Your task to perform on an android device: toggle show notifications on the lock screen Image 0: 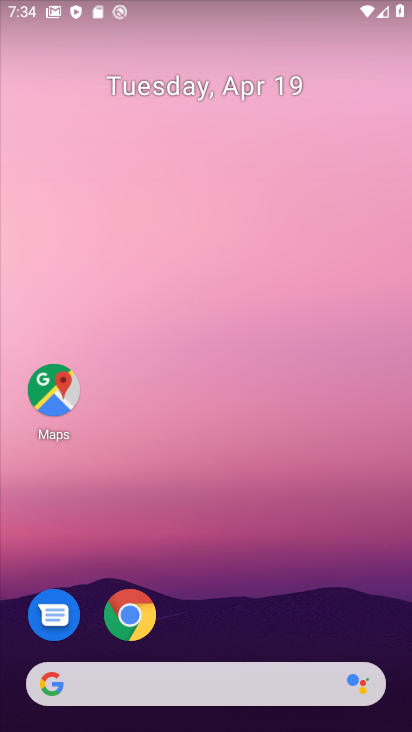
Step 0: drag from (230, 13) to (236, 588)
Your task to perform on an android device: toggle show notifications on the lock screen Image 1: 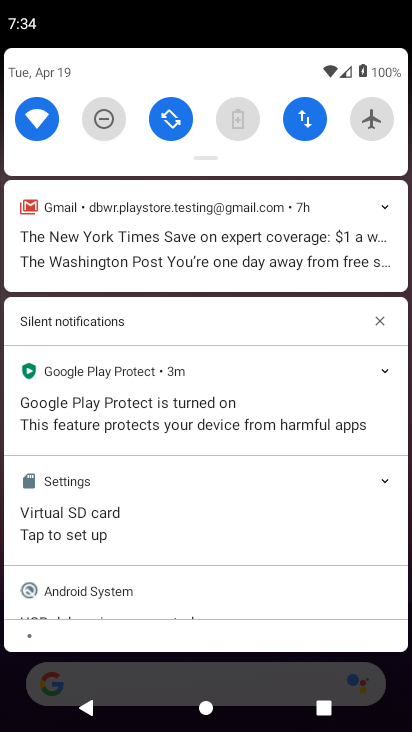
Step 1: drag from (223, 89) to (281, 647)
Your task to perform on an android device: toggle show notifications on the lock screen Image 2: 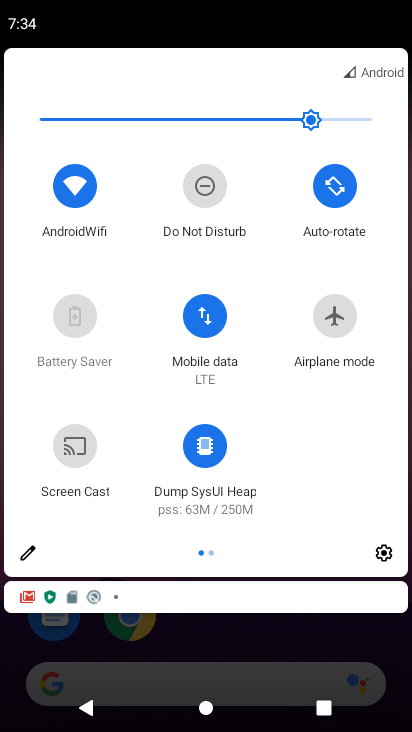
Step 2: click (383, 562)
Your task to perform on an android device: toggle show notifications on the lock screen Image 3: 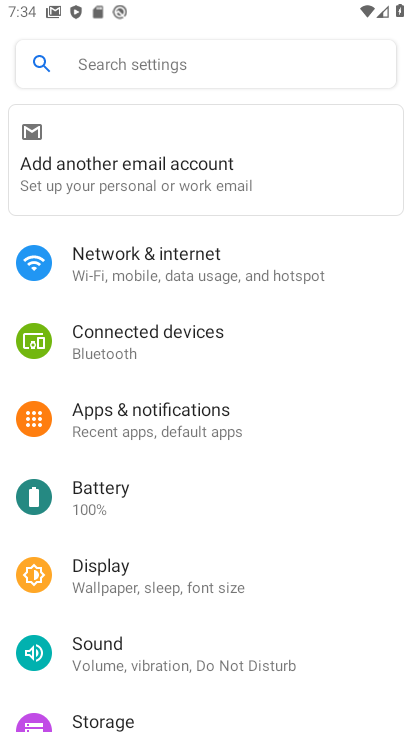
Step 3: click (179, 419)
Your task to perform on an android device: toggle show notifications on the lock screen Image 4: 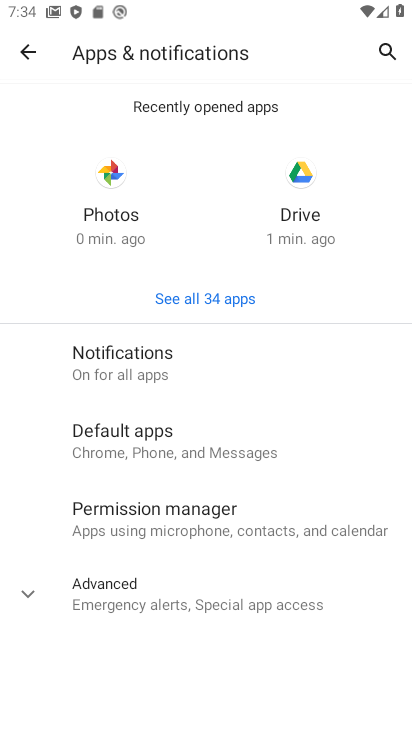
Step 4: click (140, 364)
Your task to perform on an android device: toggle show notifications on the lock screen Image 5: 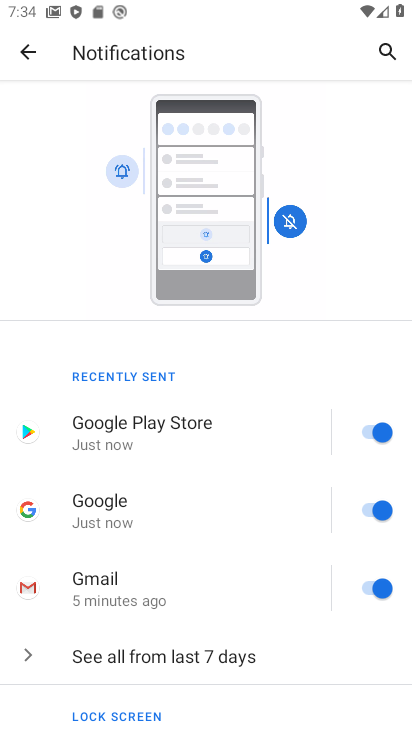
Step 5: drag from (242, 720) to (195, 113)
Your task to perform on an android device: toggle show notifications on the lock screen Image 6: 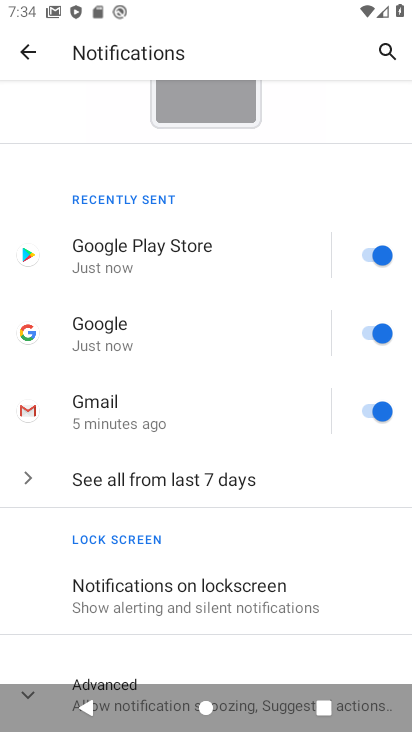
Step 6: drag from (263, 536) to (320, 15)
Your task to perform on an android device: toggle show notifications on the lock screen Image 7: 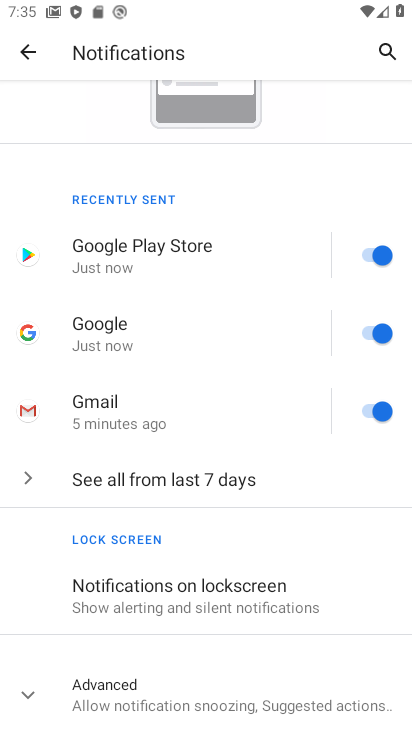
Step 7: click (210, 591)
Your task to perform on an android device: toggle show notifications on the lock screen Image 8: 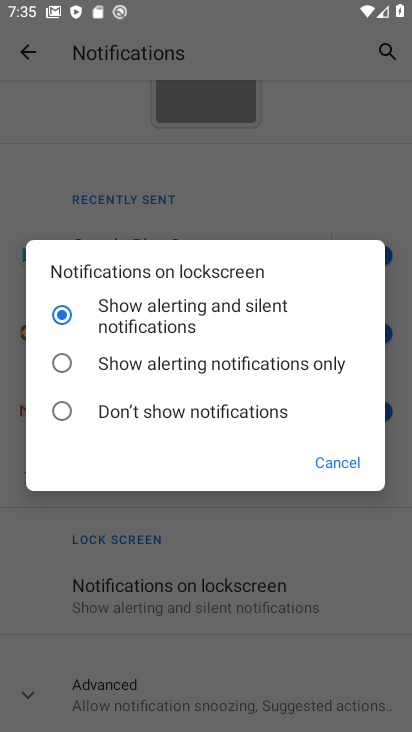
Step 8: click (198, 374)
Your task to perform on an android device: toggle show notifications on the lock screen Image 9: 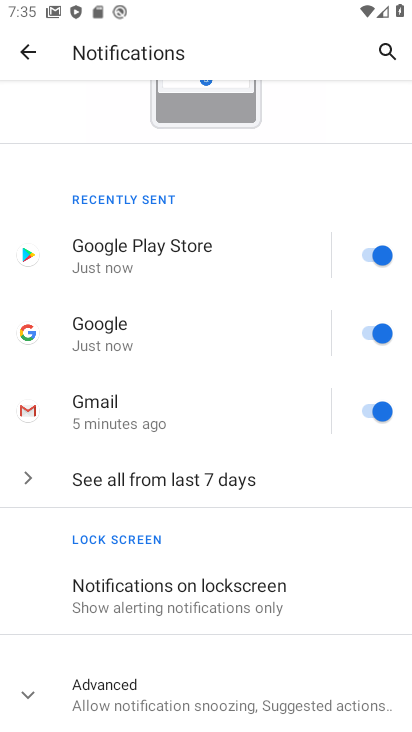
Step 9: task complete